Your task to perform on an android device: change your default location settings in chrome Image 0: 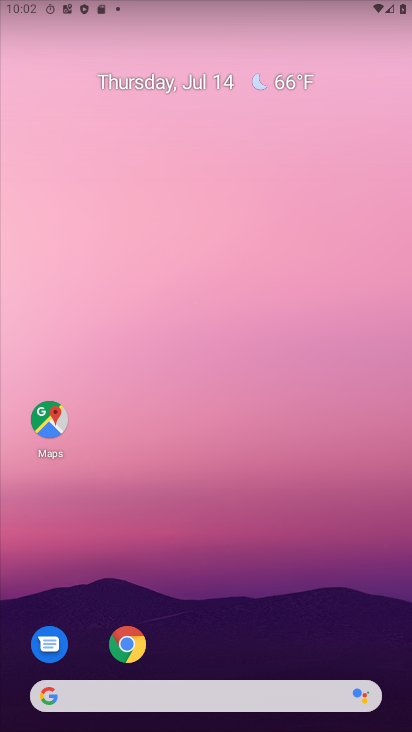
Step 0: drag from (230, 424) to (189, 168)
Your task to perform on an android device: change your default location settings in chrome Image 1: 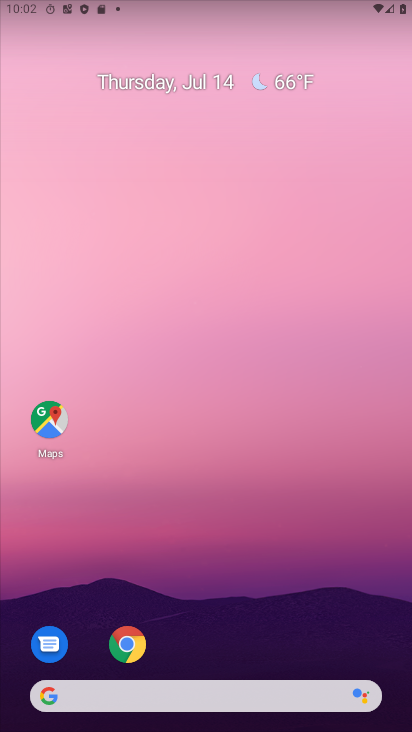
Step 1: drag from (235, 674) to (210, 138)
Your task to perform on an android device: change your default location settings in chrome Image 2: 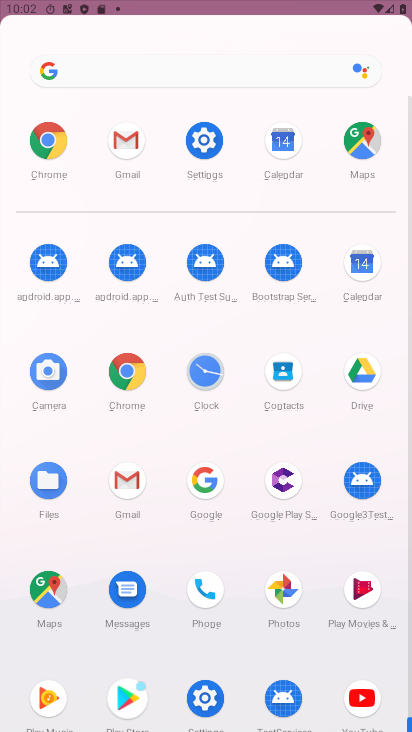
Step 2: drag from (231, 625) to (280, 118)
Your task to perform on an android device: change your default location settings in chrome Image 3: 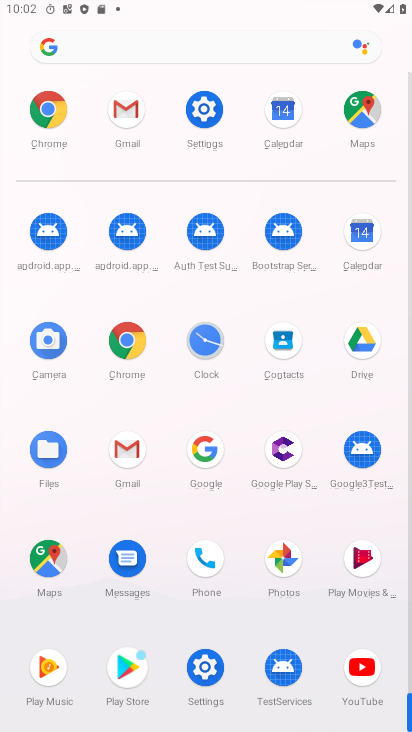
Step 3: click (200, 679)
Your task to perform on an android device: change your default location settings in chrome Image 4: 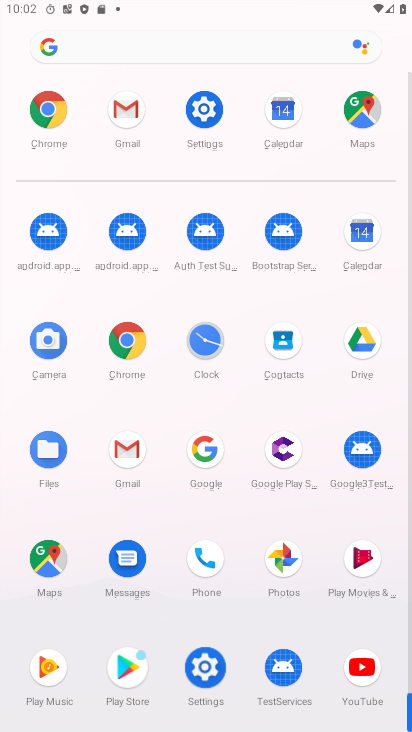
Step 4: click (200, 679)
Your task to perform on an android device: change your default location settings in chrome Image 5: 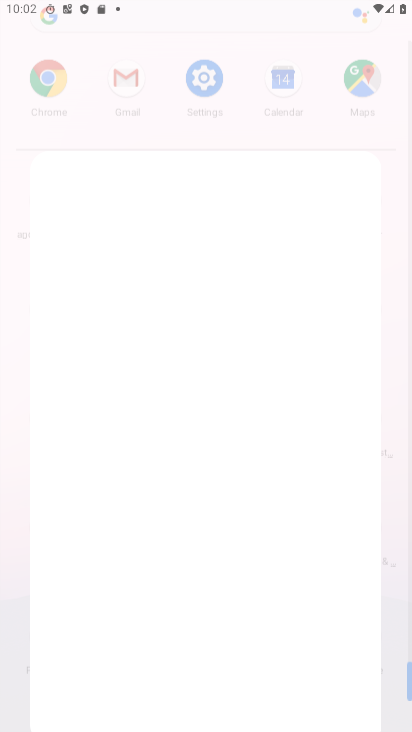
Step 5: click (200, 679)
Your task to perform on an android device: change your default location settings in chrome Image 6: 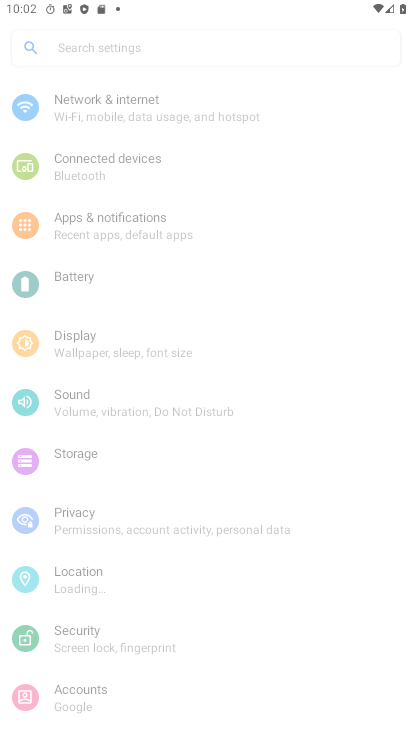
Step 6: click (215, 673)
Your task to perform on an android device: change your default location settings in chrome Image 7: 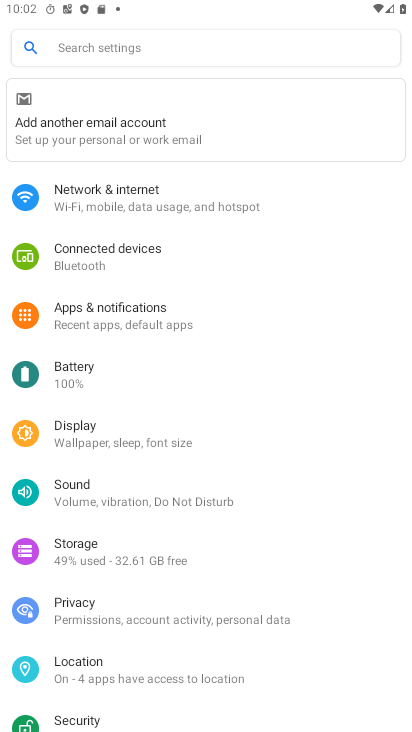
Step 7: click (74, 654)
Your task to perform on an android device: change your default location settings in chrome Image 8: 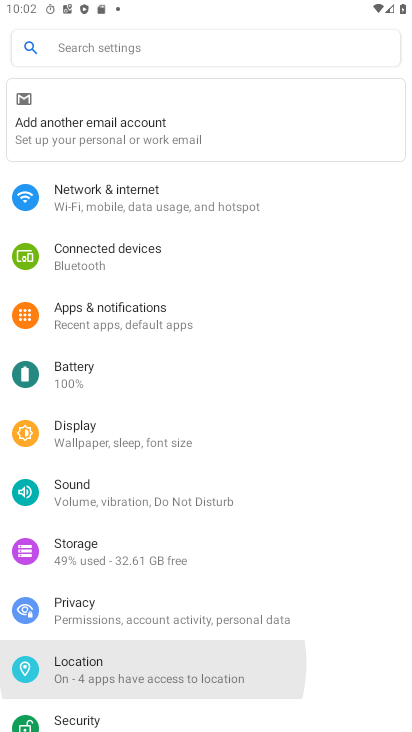
Step 8: click (73, 657)
Your task to perform on an android device: change your default location settings in chrome Image 9: 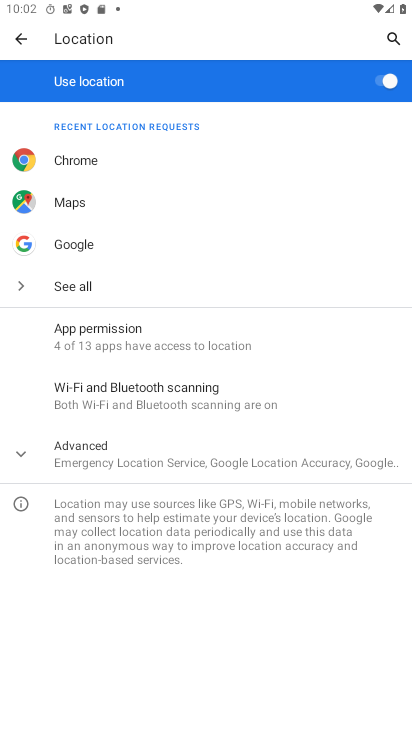
Step 9: click (24, 38)
Your task to perform on an android device: change your default location settings in chrome Image 10: 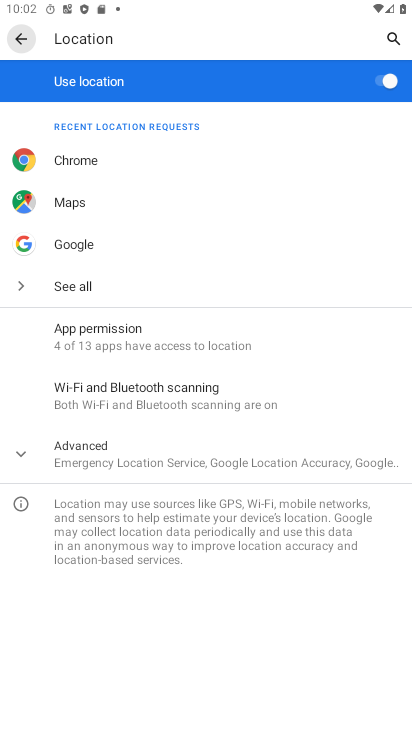
Step 10: click (24, 38)
Your task to perform on an android device: change your default location settings in chrome Image 11: 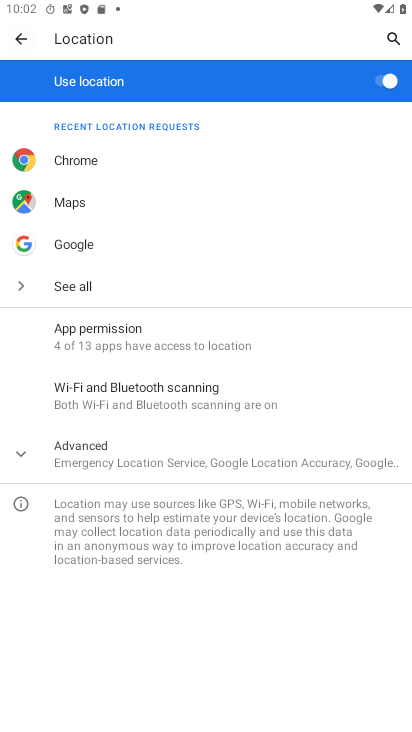
Step 11: click (25, 37)
Your task to perform on an android device: change your default location settings in chrome Image 12: 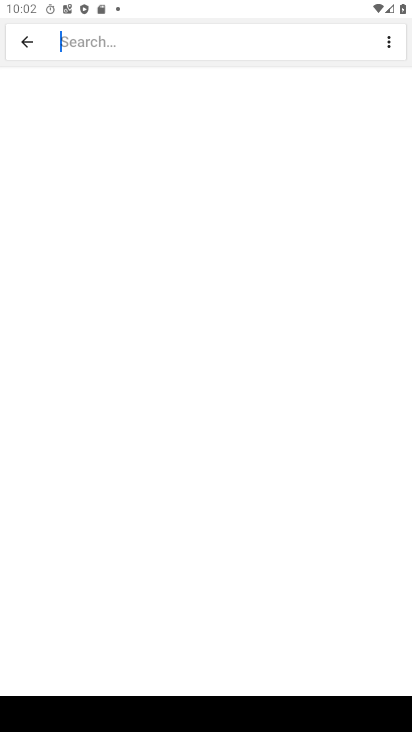
Step 12: press back button
Your task to perform on an android device: change your default location settings in chrome Image 13: 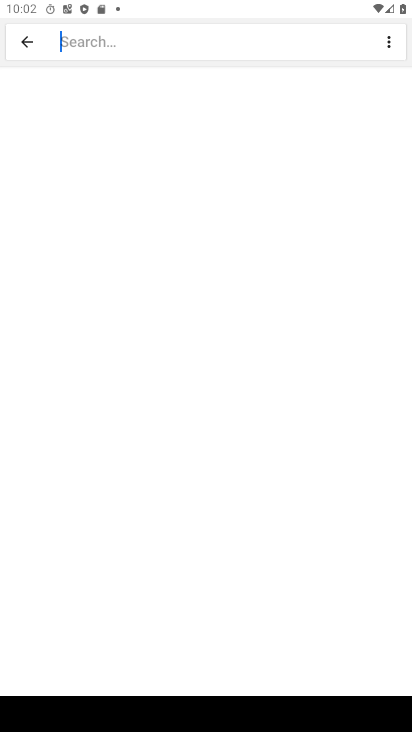
Step 13: press back button
Your task to perform on an android device: change your default location settings in chrome Image 14: 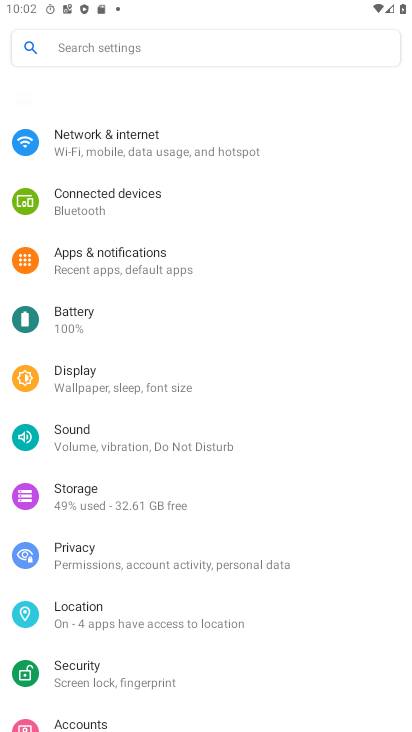
Step 14: press back button
Your task to perform on an android device: change your default location settings in chrome Image 15: 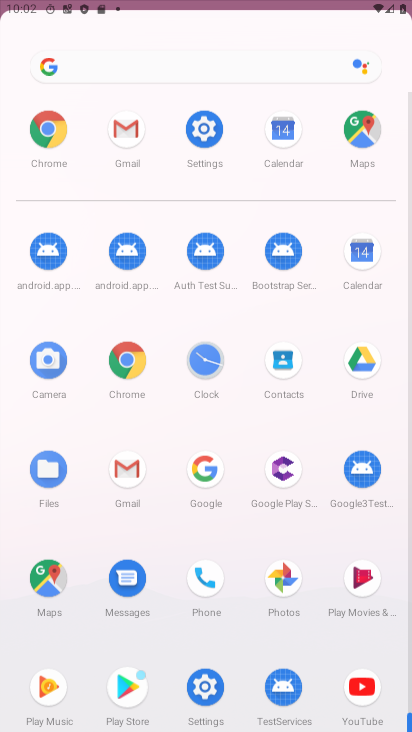
Step 15: press home button
Your task to perform on an android device: change your default location settings in chrome Image 16: 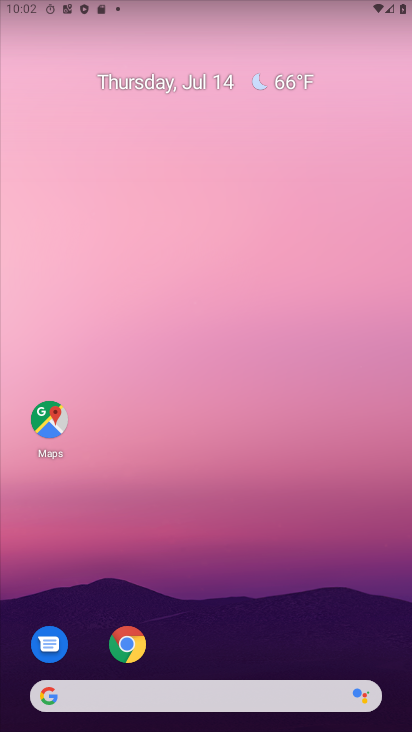
Step 16: drag from (277, 598) to (126, 85)
Your task to perform on an android device: change your default location settings in chrome Image 17: 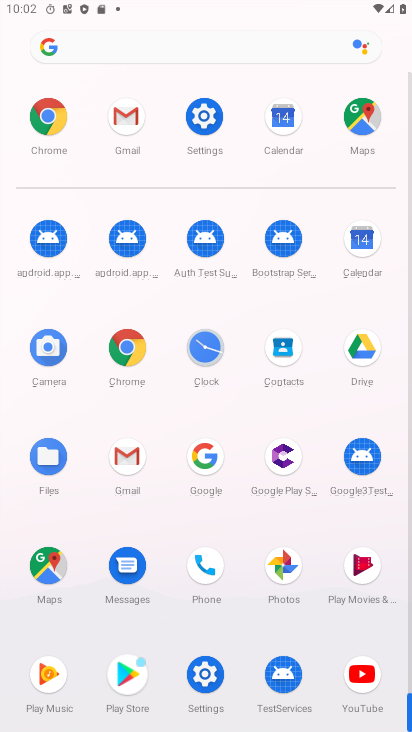
Step 17: click (125, 351)
Your task to perform on an android device: change your default location settings in chrome Image 18: 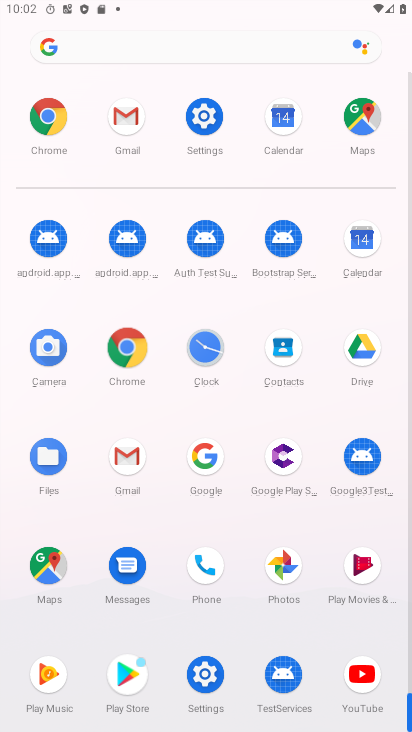
Step 18: click (125, 351)
Your task to perform on an android device: change your default location settings in chrome Image 19: 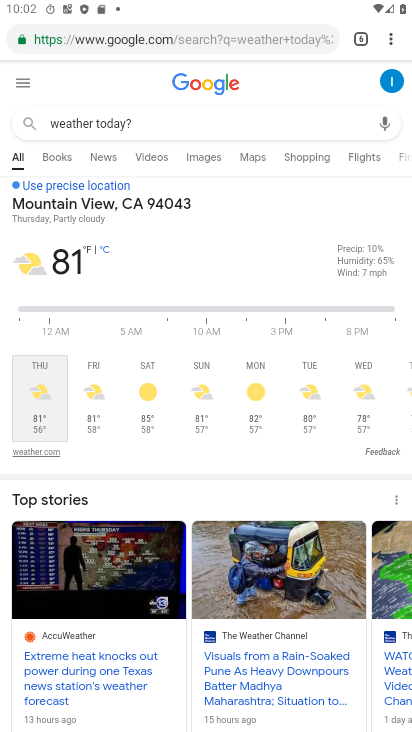
Step 19: click (388, 41)
Your task to perform on an android device: change your default location settings in chrome Image 20: 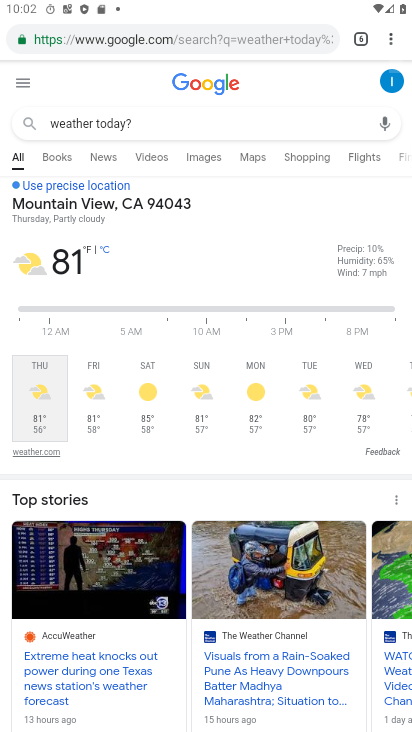
Step 20: click (388, 41)
Your task to perform on an android device: change your default location settings in chrome Image 21: 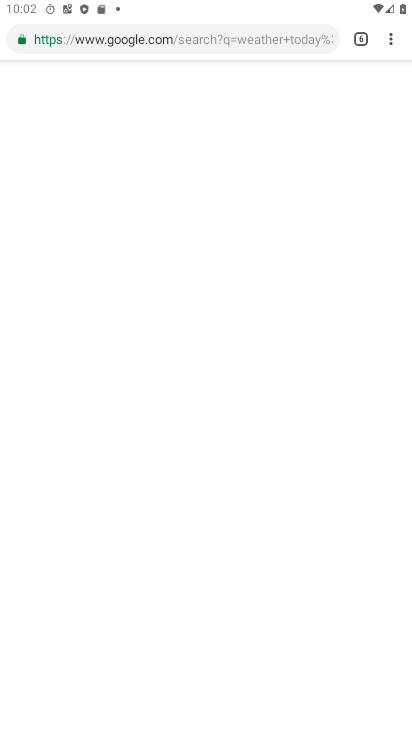
Step 21: drag from (390, 37) to (246, 447)
Your task to perform on an android device: change your default location settings in chrome Image 22: 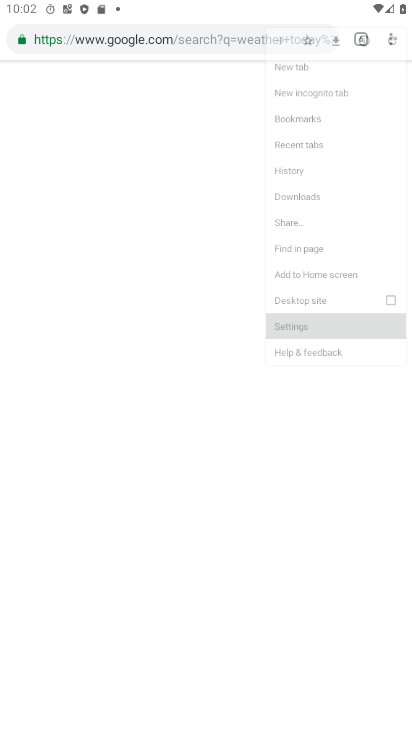
Step 22: click (251, 444)
Your task to perform on an android device: change your default location settings in chrome Image 23: 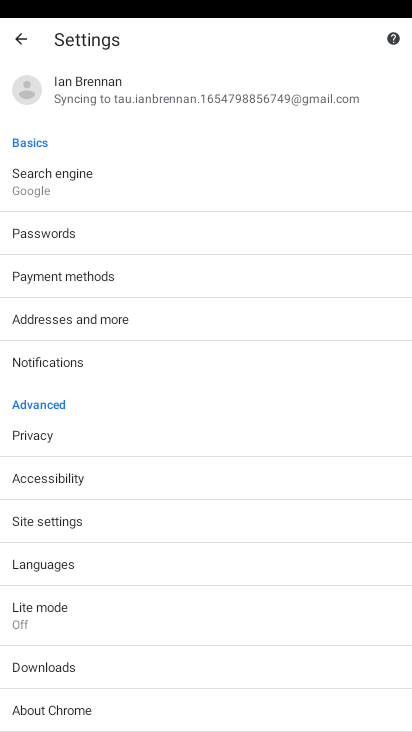
Step 23: drag from (55, 662) to (45, 400)
Your task to perform on an android device: change your default location settings in chrome Image 24: 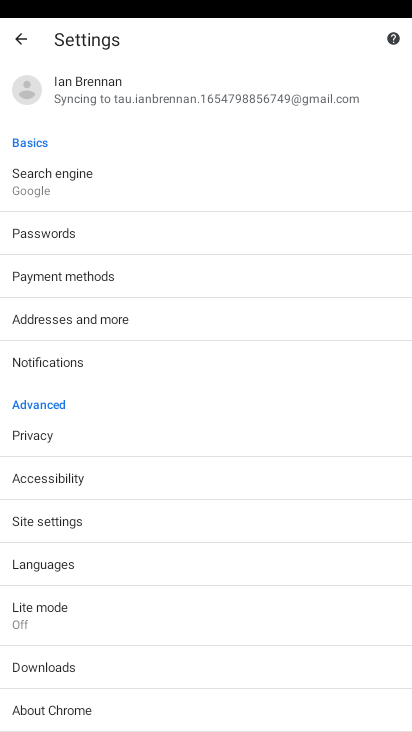
Step 24: click (70, 564)
Your task to perform on an android device: change your default location settings in chrome Image 25: 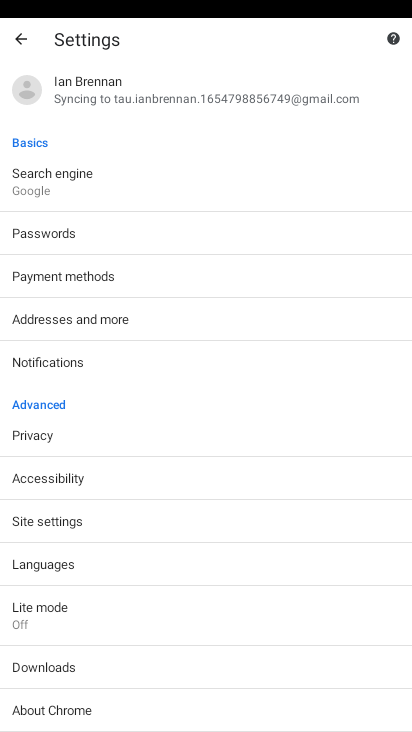
Step 25: click (75, 553)
Your task to perform on an android device: change your default location settings in chrome Image 26: 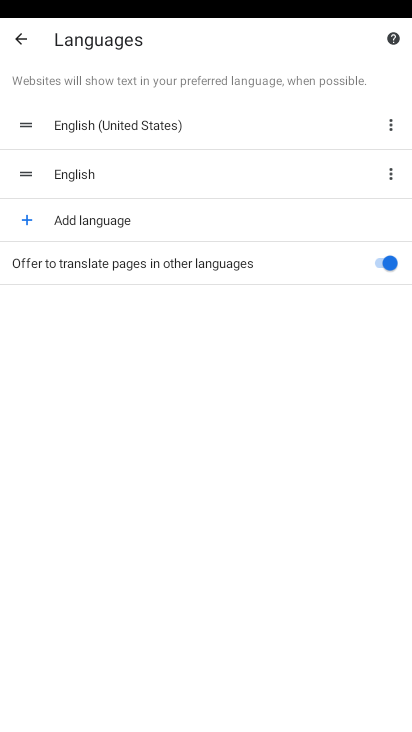
Step 26: click (381, 266)
Your task to perform on an android device: change your default location settings in chrome Image 27: 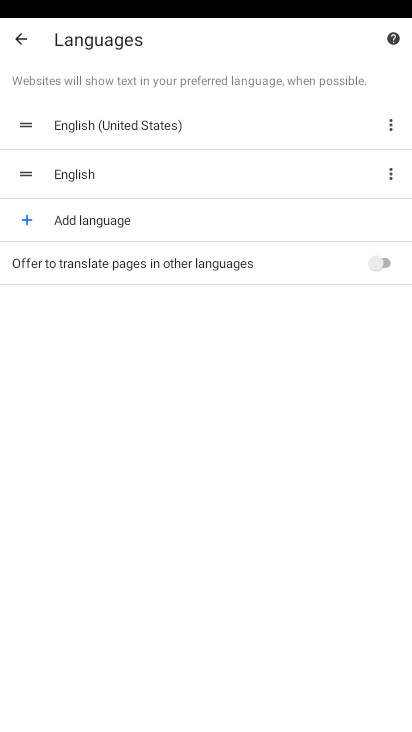
Step 27: task complete